Your task to perform on an android device: toggle priority inbox in the gmail app Image 0: 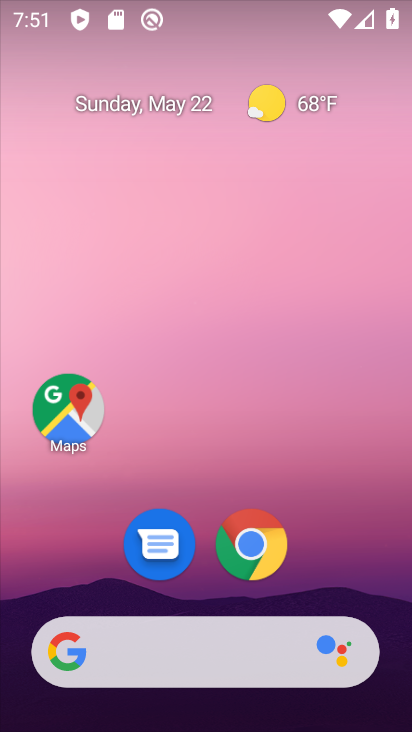
Step 0: click (400, 611)
Your task to perform on an android device: toggle priority inbox in the gmail app Image 1: 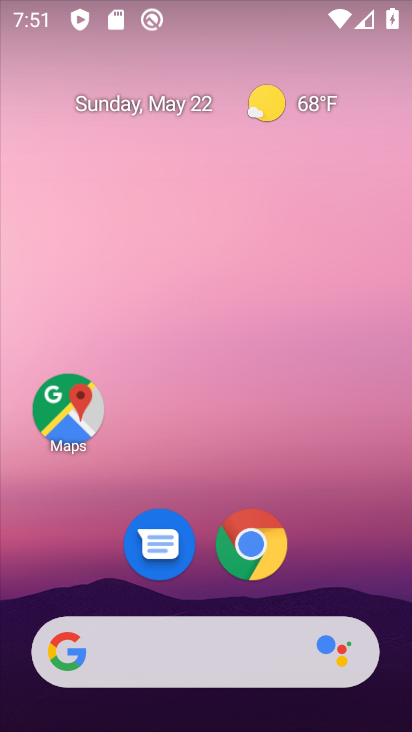
Step 1: drag from (394, 680) to (318, 120)
Your task to perform on an android device: toggle priority inbox in the gmail app Image 2: 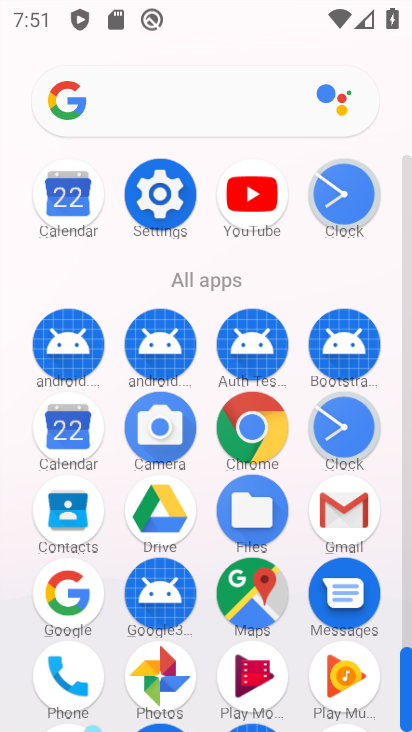
Step 2: click (341, 520)
Your task to perform on an android device: toggle priority inbox in the gmail app Image 3: 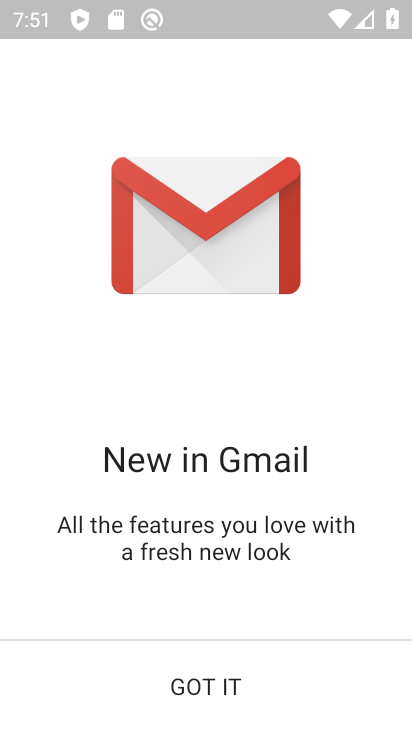
Step 3: click (230, 672)
Your task to perform on an android device: toggle priority inbox in the gmail app Image 4: 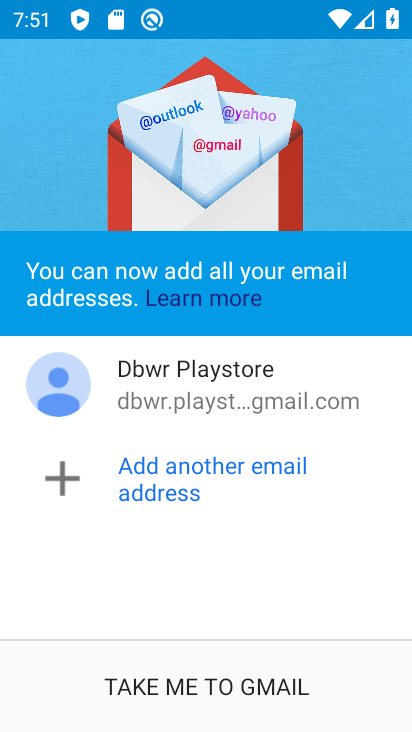
Step 4: click (230, 672)
Your task to perform on an android device: toggle priority inbox in the gmail app Image 5: 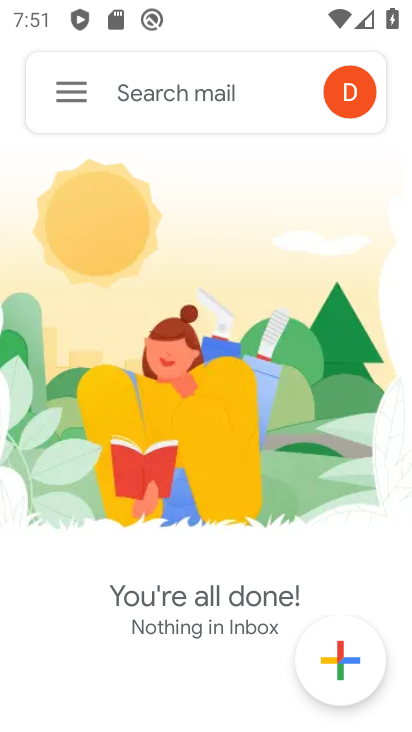
Step 5: click (82, 105)
Your task to perform on an android device: toggle priority inbox in the gmail app Image 6: 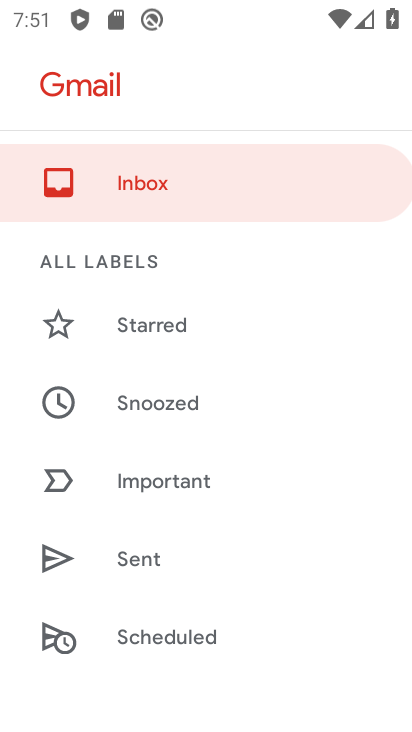
Step 6: drag from (317, 664) to (303, 52)
Your task to perform on an android device: toggle priority inbox in the gmail app Image 7: 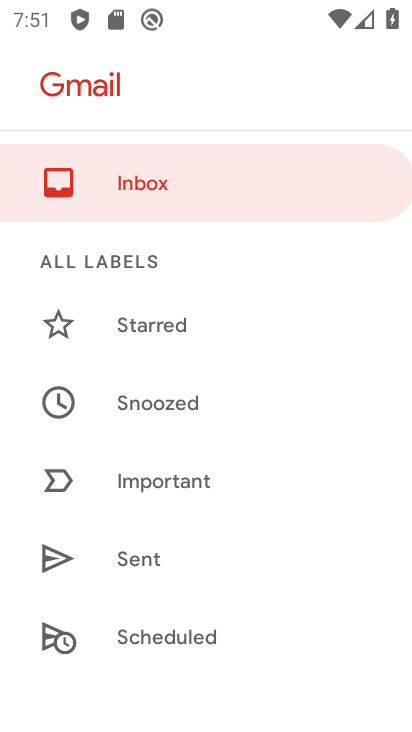
Step 7: drag from (357, 694) to (338, 206)
Your task to perform on an android device: toggle priority inbox in the gmail app Image 8: 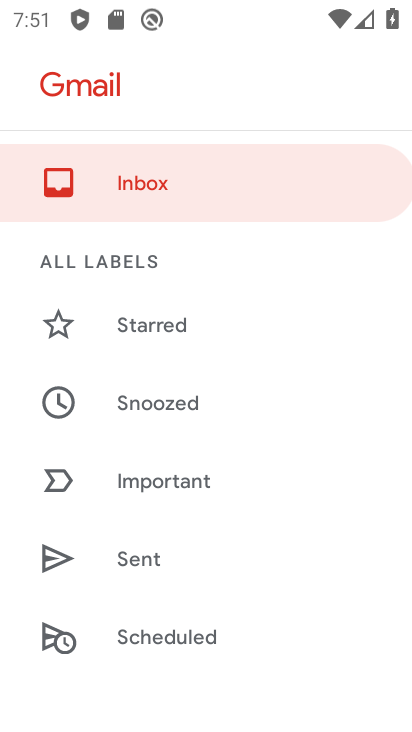
Step 8: drag from (276, 615) to (264, 172)
Your task to perform on an android device: toggle priority inbox in the gmail app Image 9: 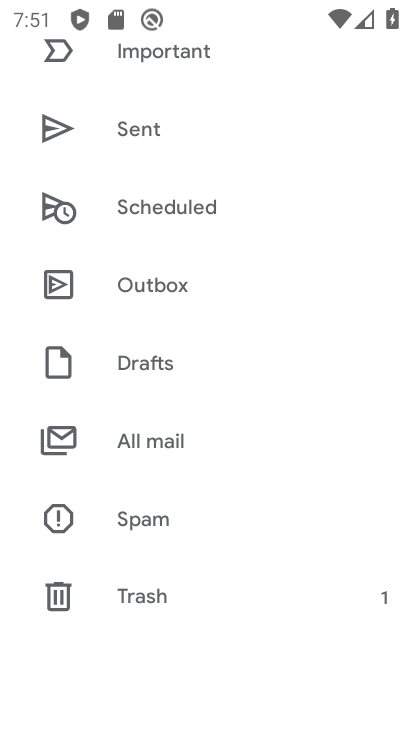
Step 9: drag from (245, 602) to (267, 170)
Your task to perform on an android device: toggle priority inbox in the gmail app Image 10: 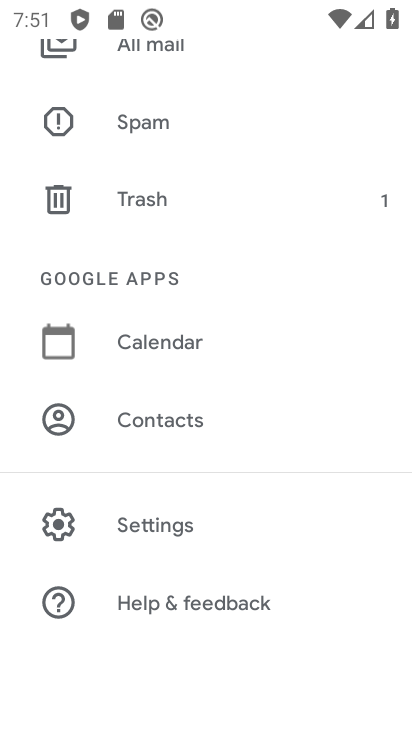
Step 10: click (152, 547)
Your task to perform on an android device: toggle priority inbox in the gmail app Image 11: 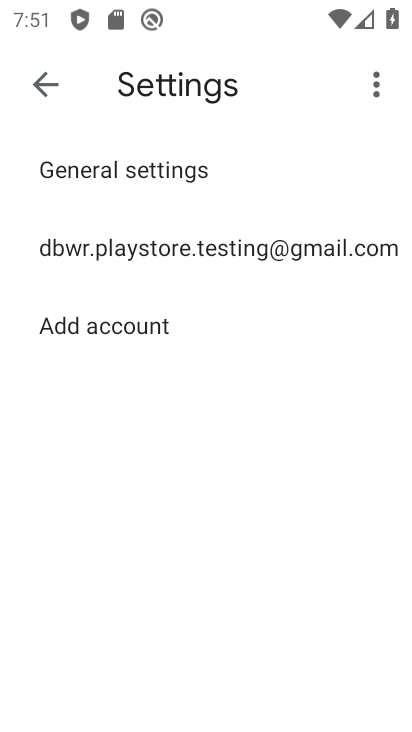
Step 11: click (117, 251)
Your task to perform on an android device: toggle priority inbox in the gmail app Image 12: 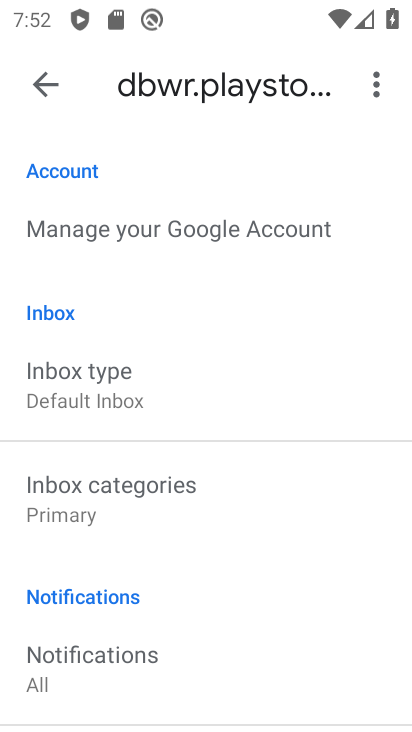
Step 12: click (87, 372)
Your task to perform on an android device: toggle priority inbox in the gmail app Image 13: 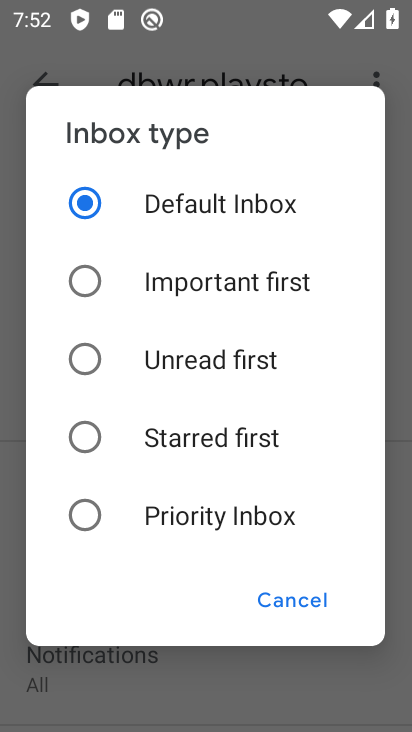
Step 13: click (80, 503)
Your task to perform on an android device: toggle priority inbox in the gmail app Image 14: 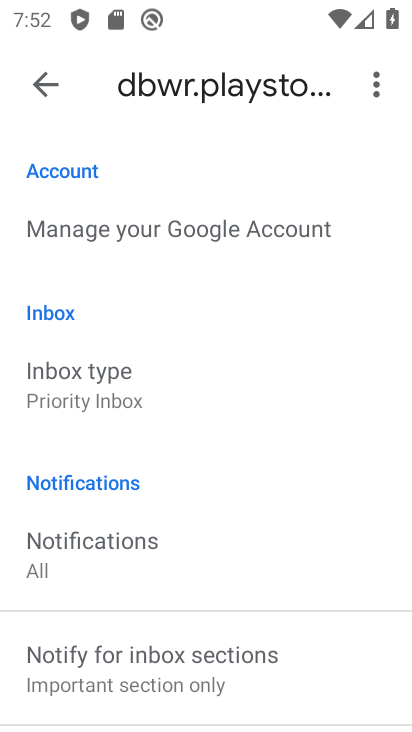
Step 14: task complete